Your task to perform on an android device: Open display settings Image 0: 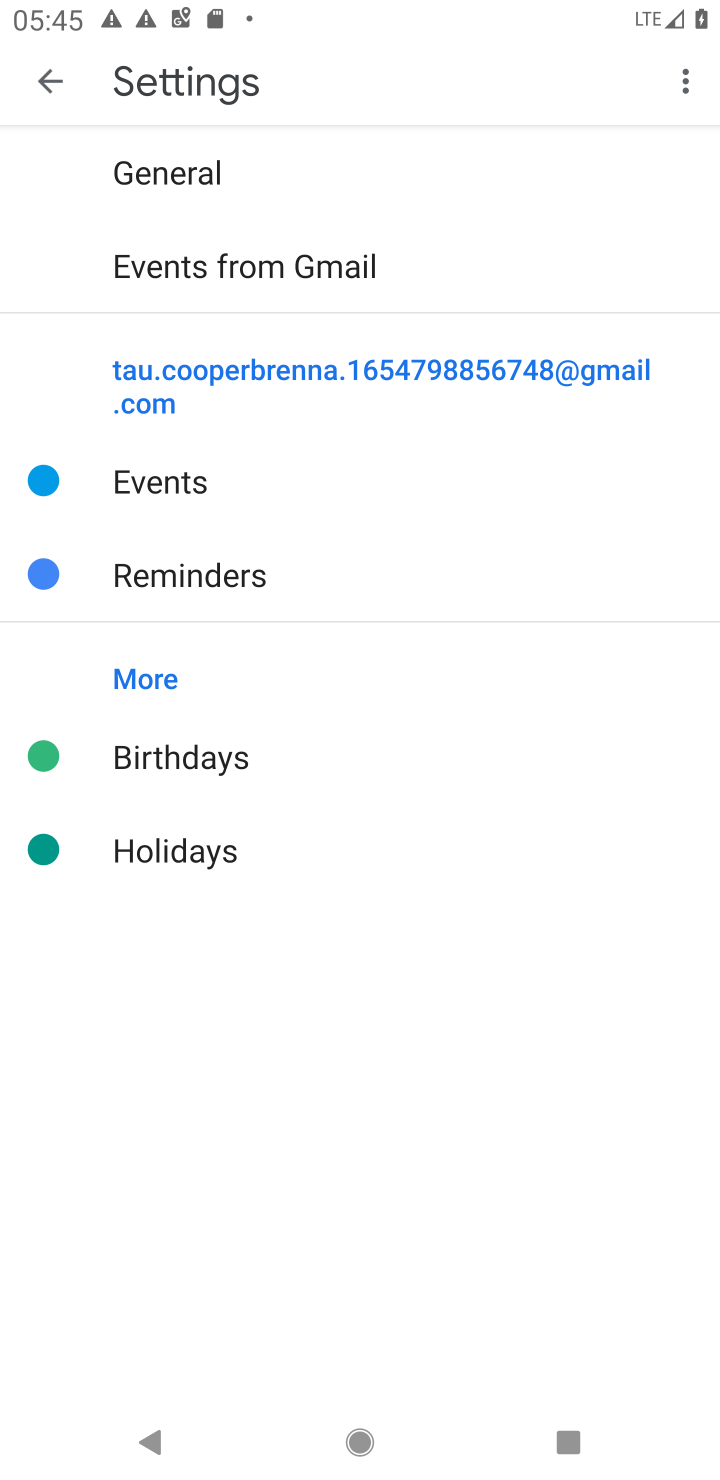
Step 0: press home button
Your task to perform on an android device: Open display settings Image 1: 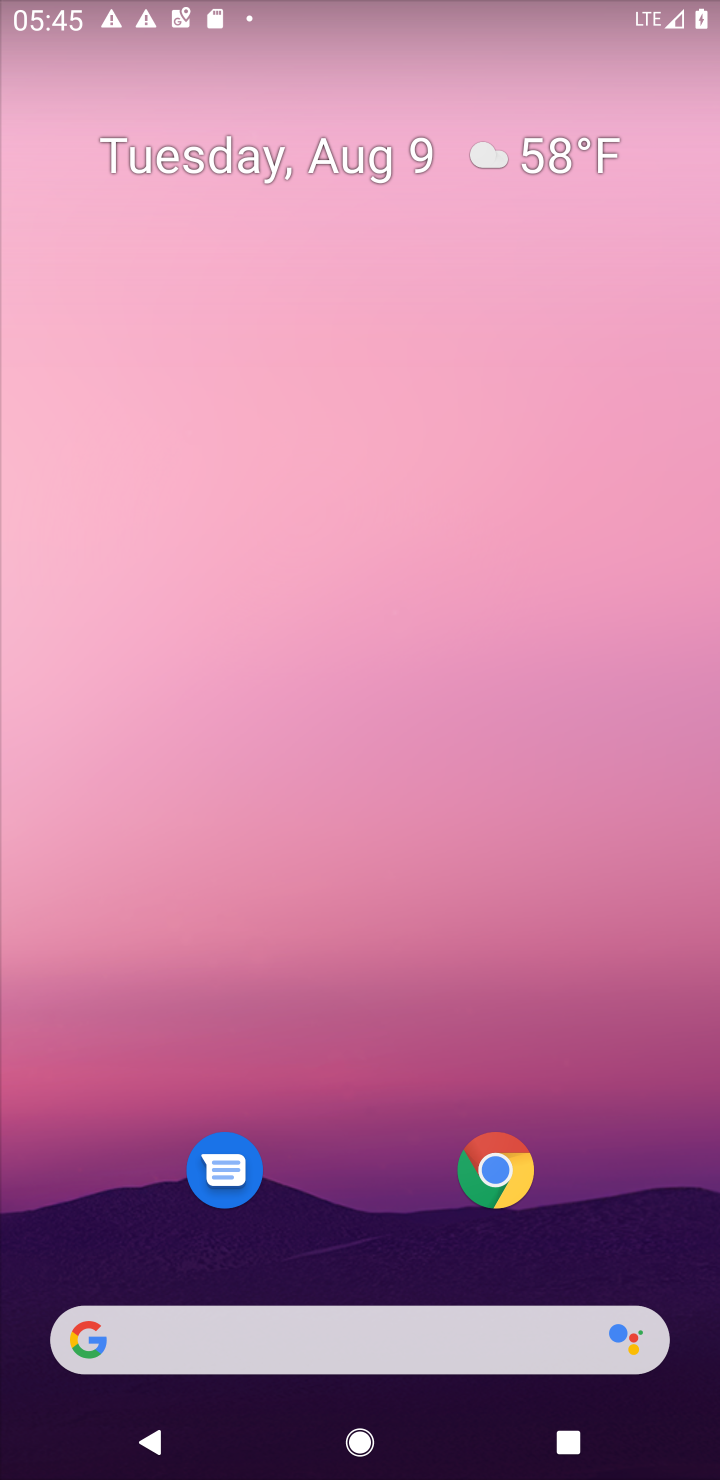
Step 1: drag from (388, 1225) to (370, 235)
Your task to perform on an android device: Open display settings Image 2: 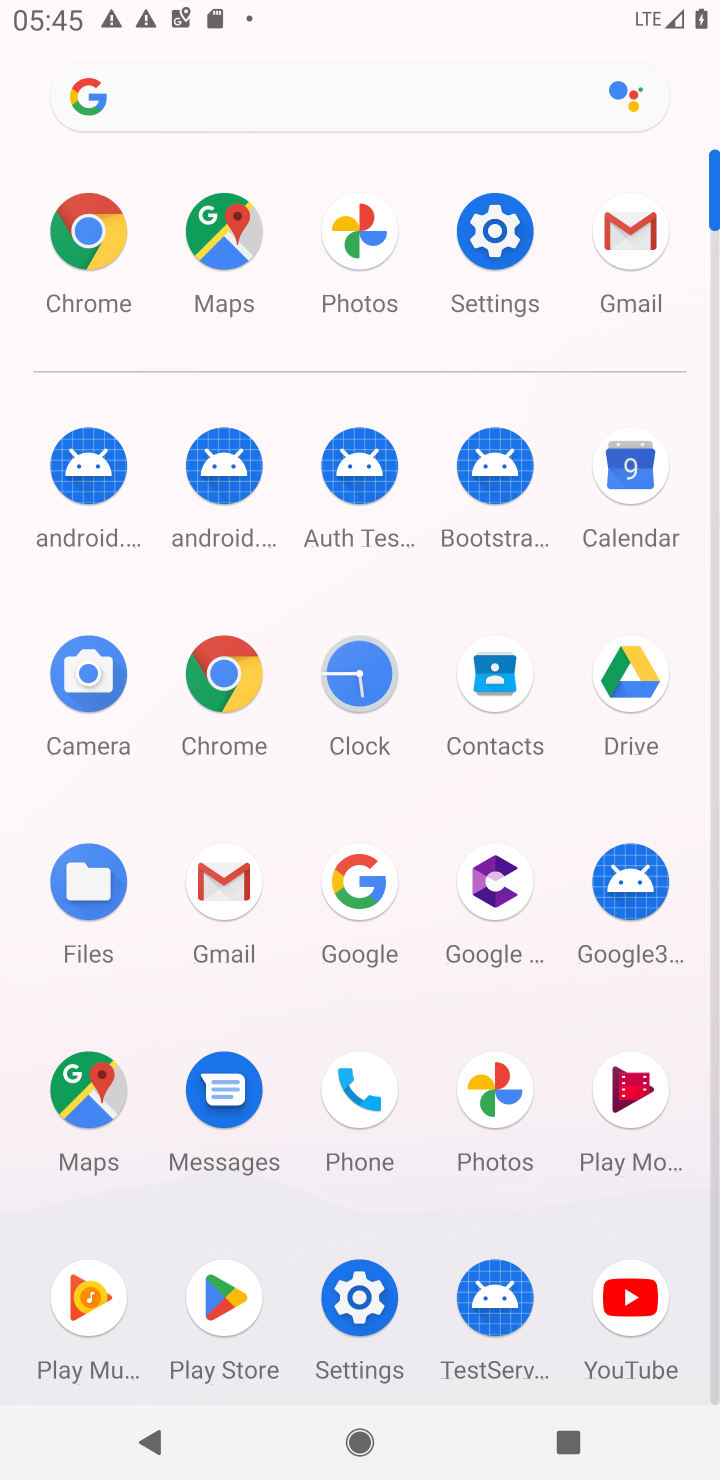
Step 2: click (476, 236)
Your task to perform on an android device: Open display settings Image 3: 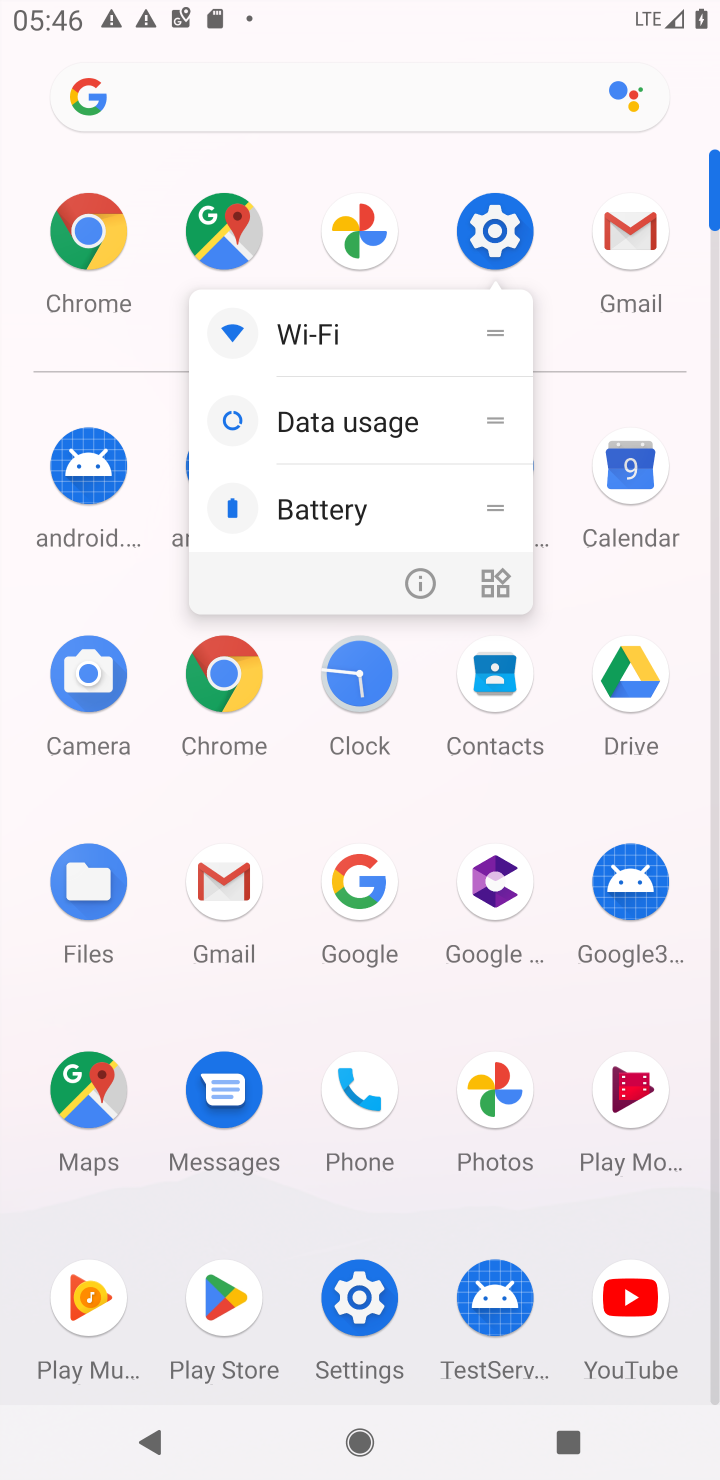
Step 3: click (476, 236)
Your task to perform on an android device: Open display settings Image 4: 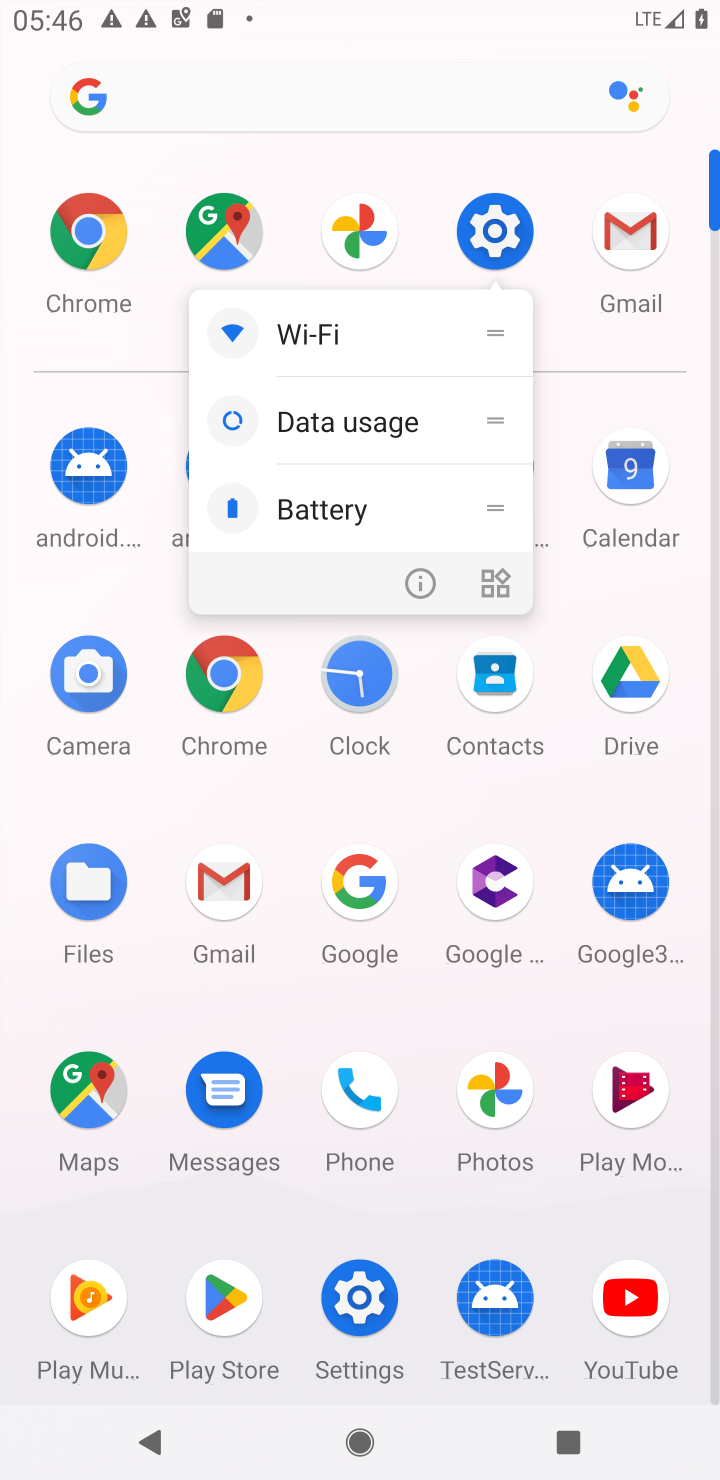
Step 4: click (492, 230)
Your task to perform on an android device: Open display settings Image 5: 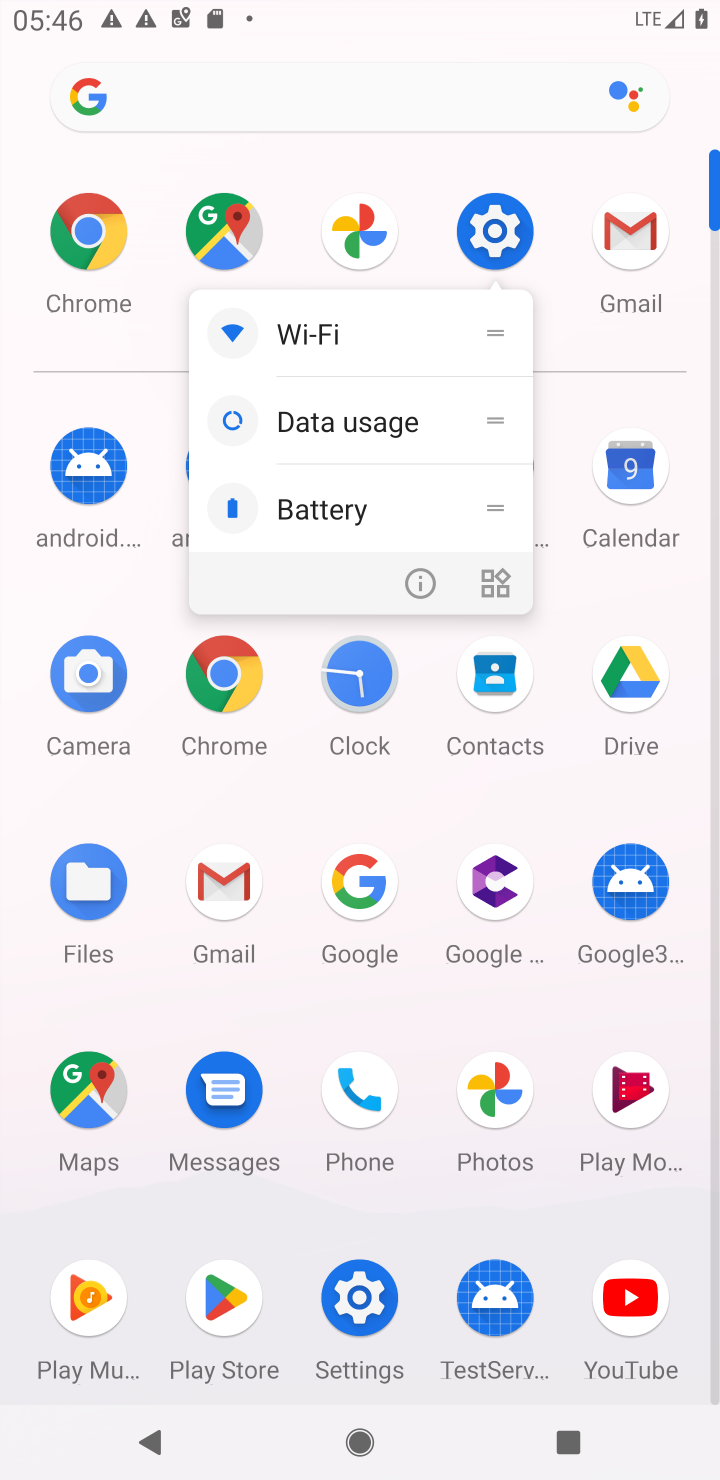
Step 5: click (492, 230)
Your task to perform on an android device: Open display settings Image 6: 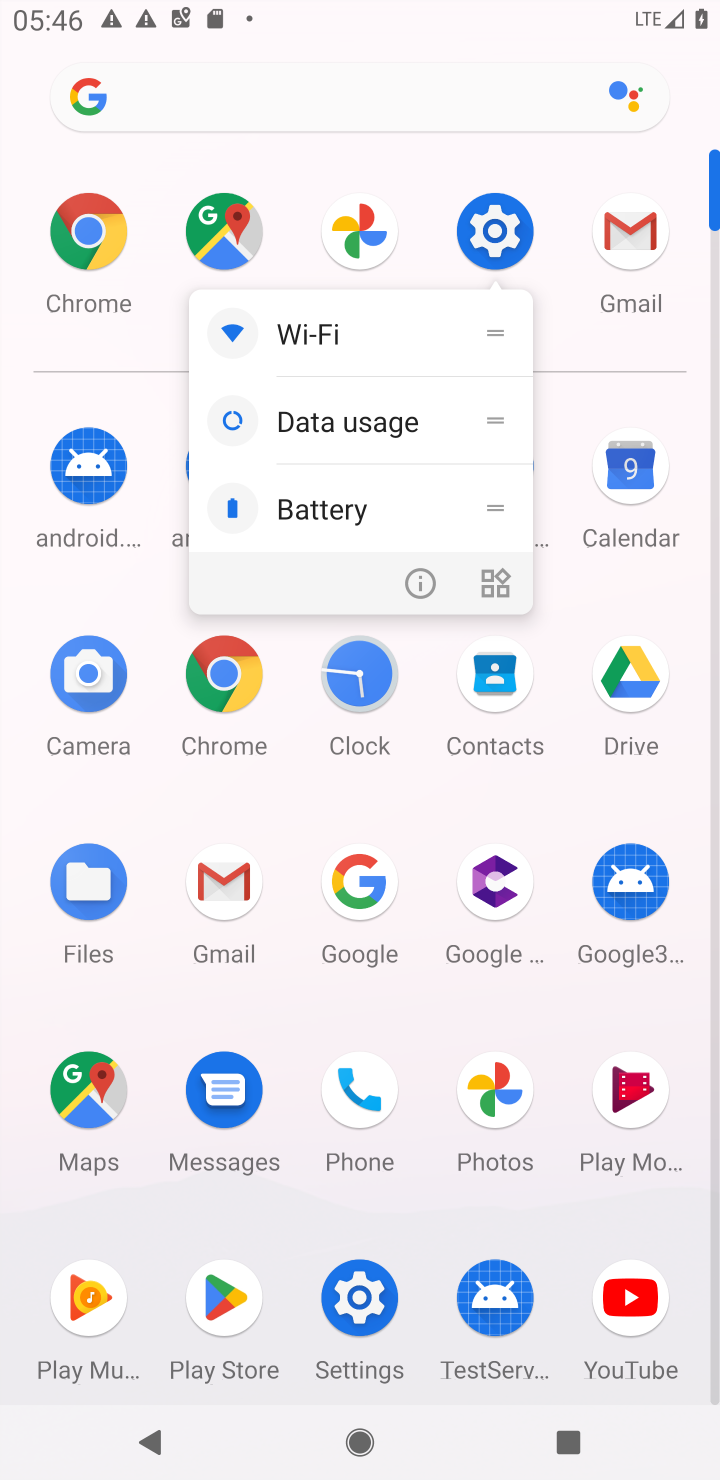
Step 6: click (492, 230)
Your task to perform on an android device: Open display settings Image 7: 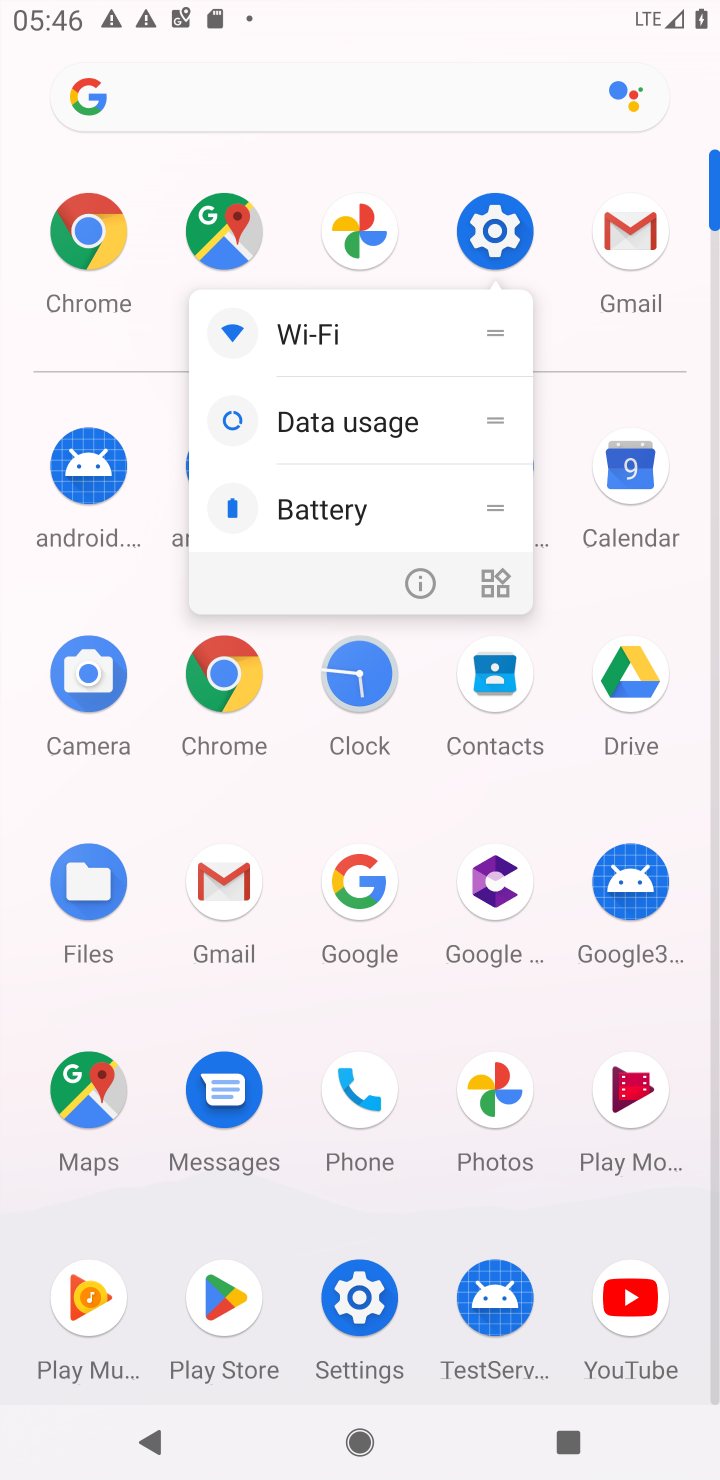
Step 7: click (487, 233)
Your task to perform on an android device: Open display settings Image 8: 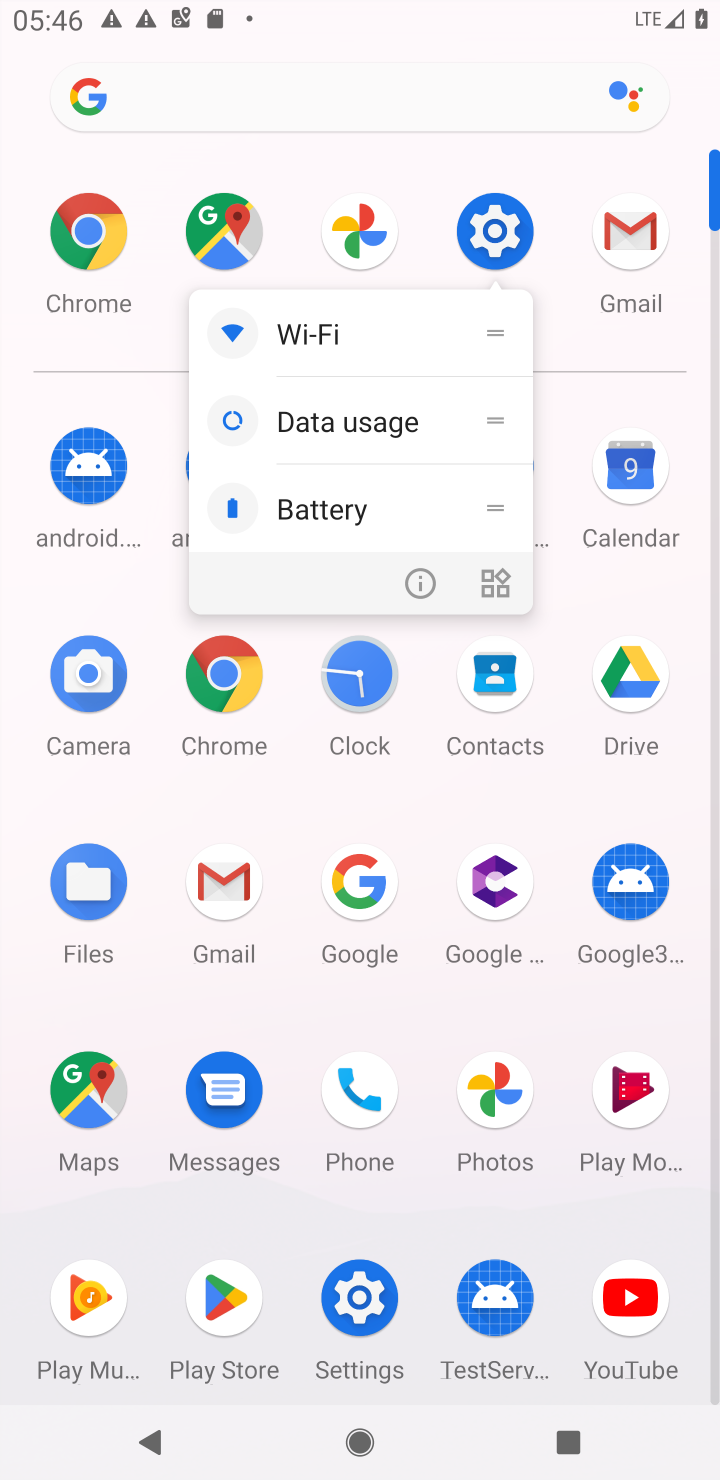
Step 8: click (501, 225)
Your task to perform on an android device: Open display settings Image 9: 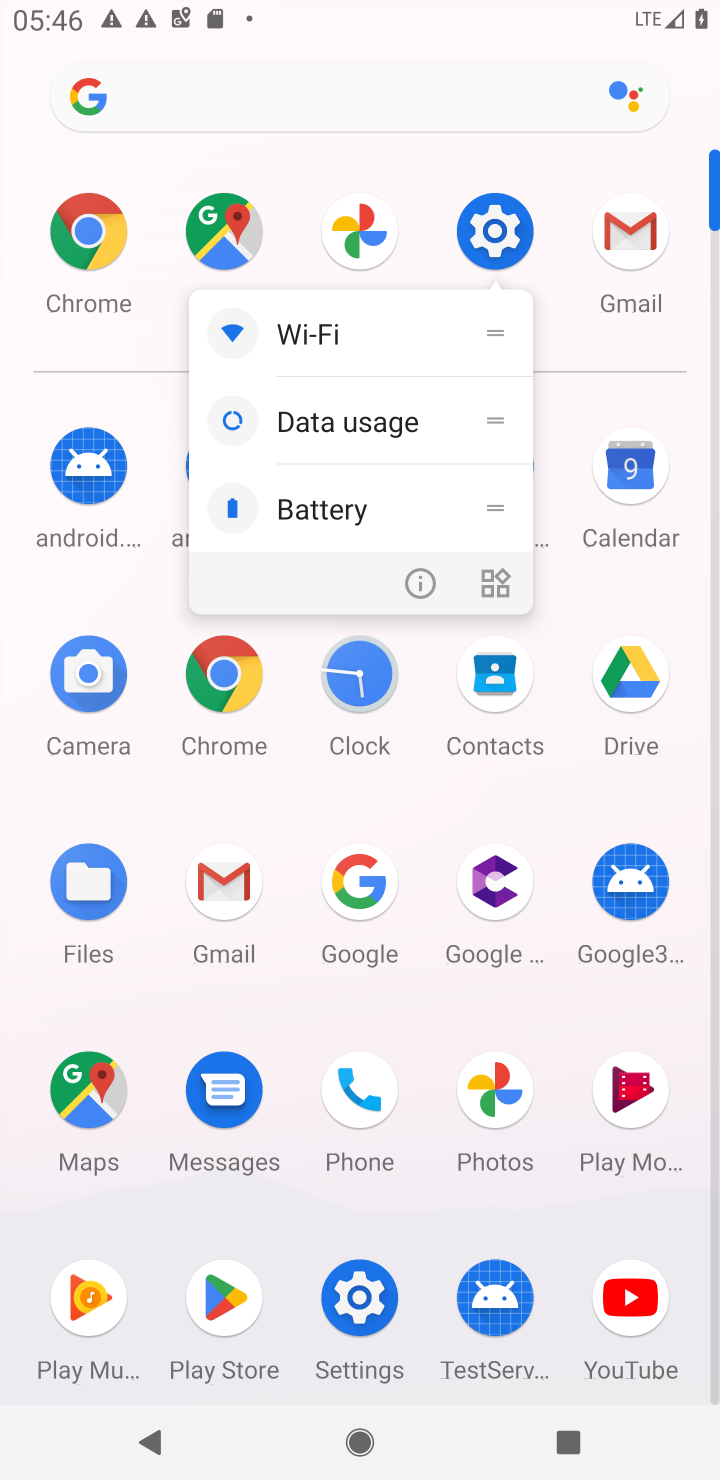
Step 9: click (501, 225)
Your task to perform on an android device: Open display settings Image 10: 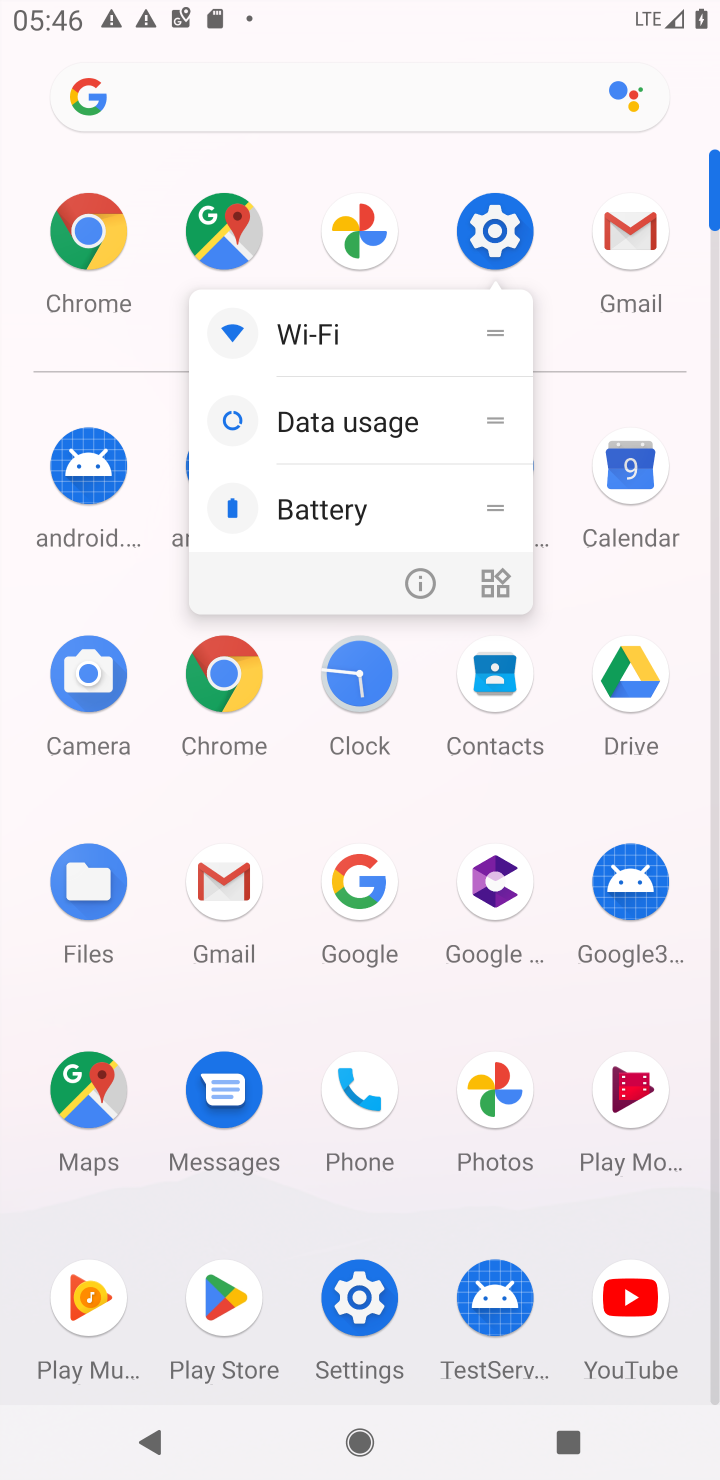
Step 10: click (501, 225)
Your task to perform on an android device: Open display settings Image 11: 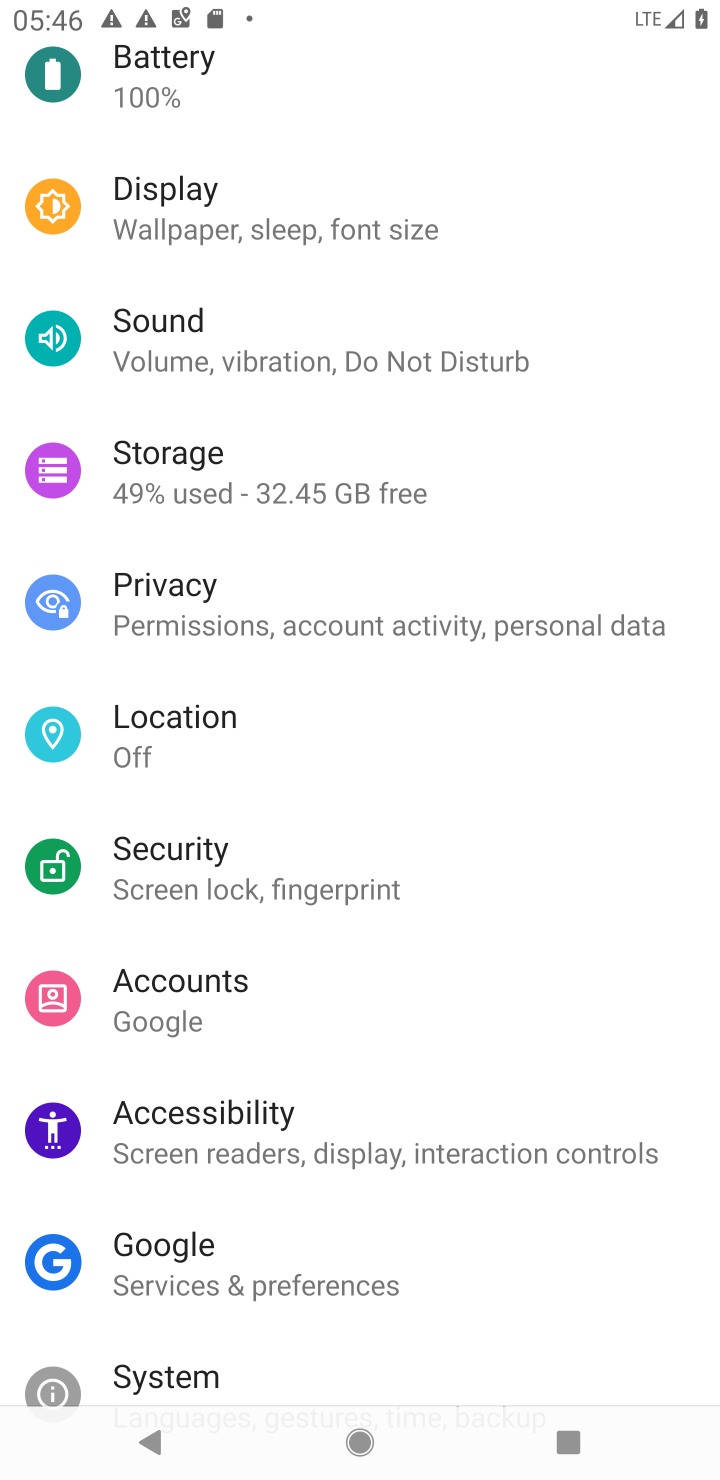
Step 11: task complete